Your task to perform on an android device: turn on the 12-hour format for clock Image 0: 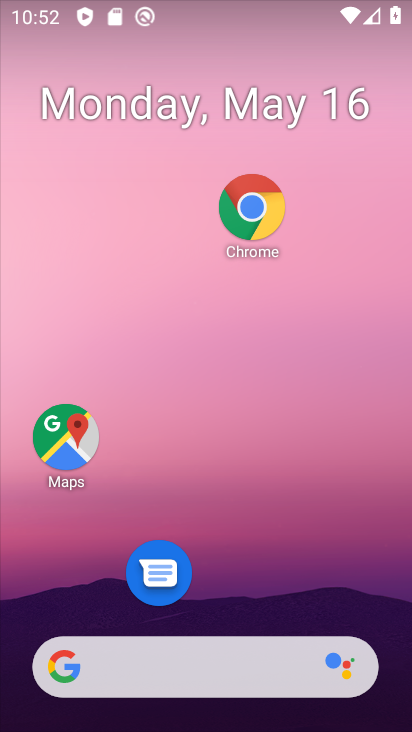
Step 0: drag from (208, 643) to (221, 56)
Your task to perform on an android device: turn on the 12-hour format for clock Image 1: 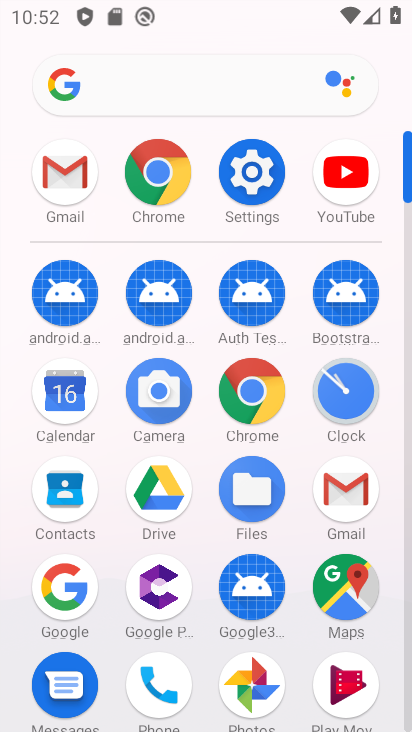
Step 1: click (353, 399)
Your task to perform on an android device: turn on the 12-hour format for clock Image 2: 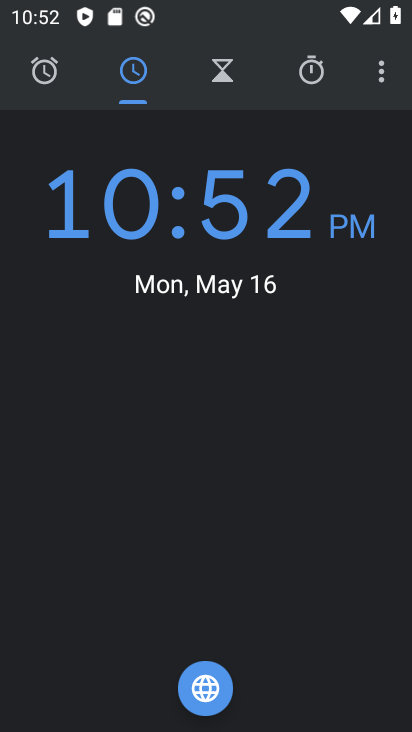
Step 2: click (379, 72)
Your task to perform on an android device: turn on the 12-hour format for clock Image 3: 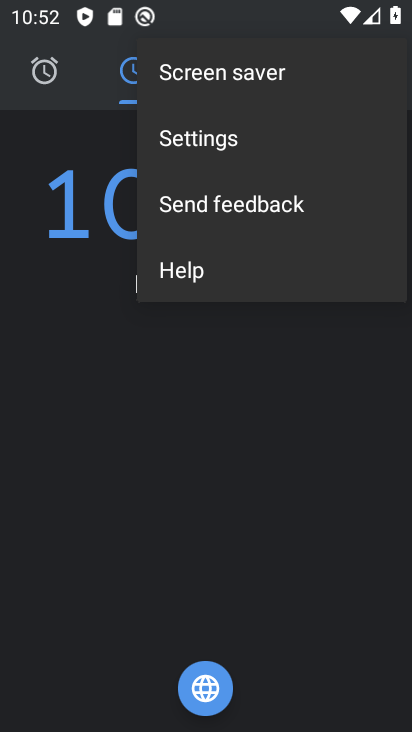
Step 3: click (256, 148)
Your task to perform on an android device: turn on the 12-hour format for clock Image 4: 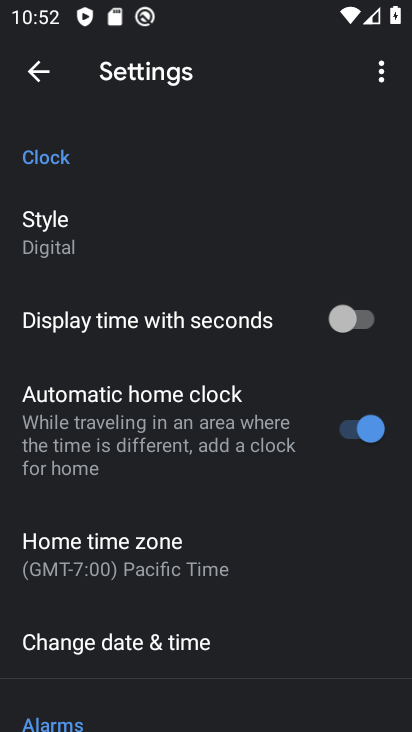
Step 4: drag from (208, 592) to (282, 211)
Your task to perform on an android device: turn on the 12-hour format for clock Image 5: 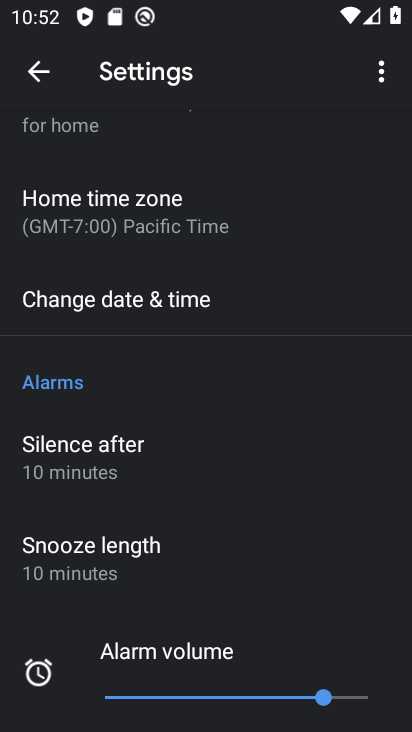
Step 5: click (211, 309)
Your task to perform on an android device: turn on the 12-hour format for clock Image 6: 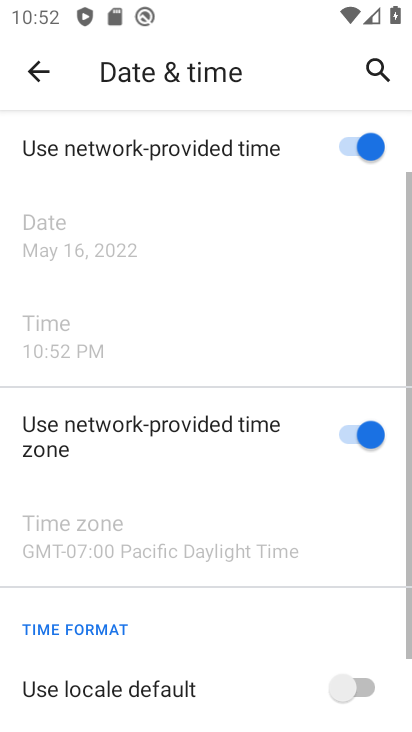
Step 6: drag from (289, 616) to (315, 224)
Your task to perform on an android device: turn on the 12-hour format for clock Image 7: 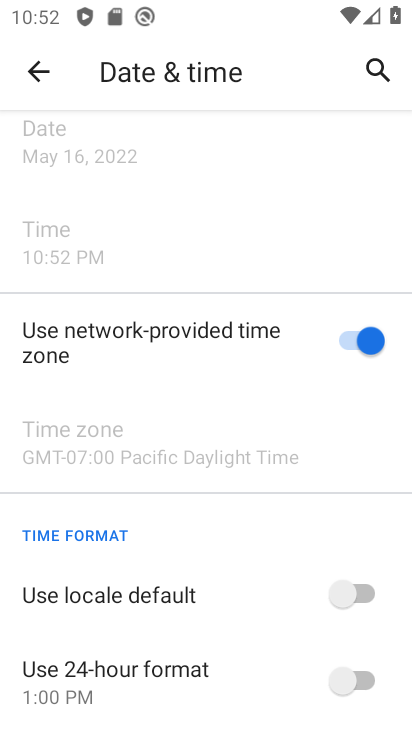
Step 7: click (364, 675)
Your task to perform on an android device: turn on the 12-hour format for clock Image 8: 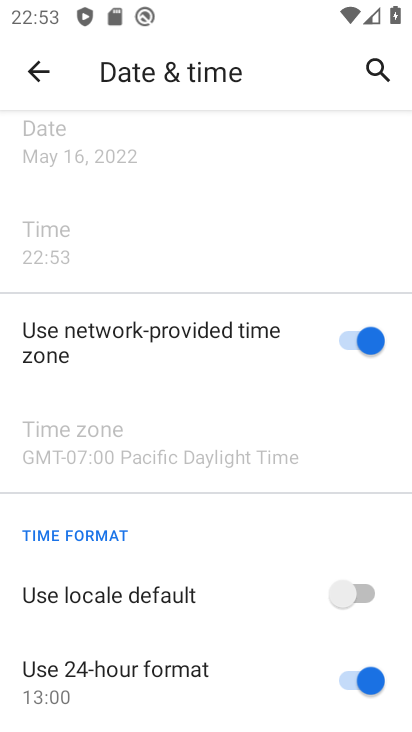
Step 8: task complete